Your task to perform on an android device: turn on priority inbox in the gmail app Image 0: 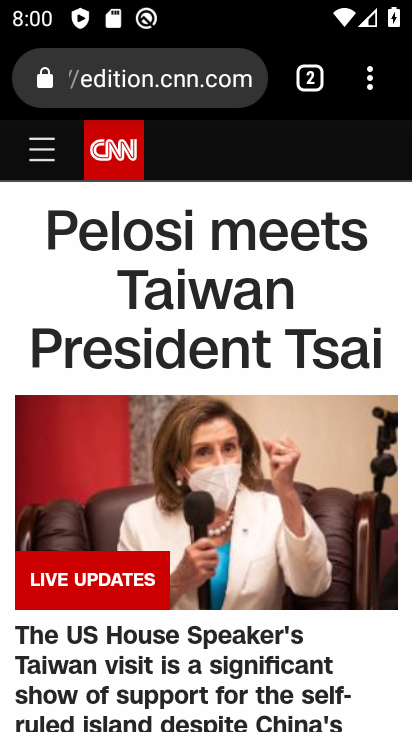
Step 0: press home button
Your task to perform on an android device: turn on priority inbox in the gmail app Image 1: 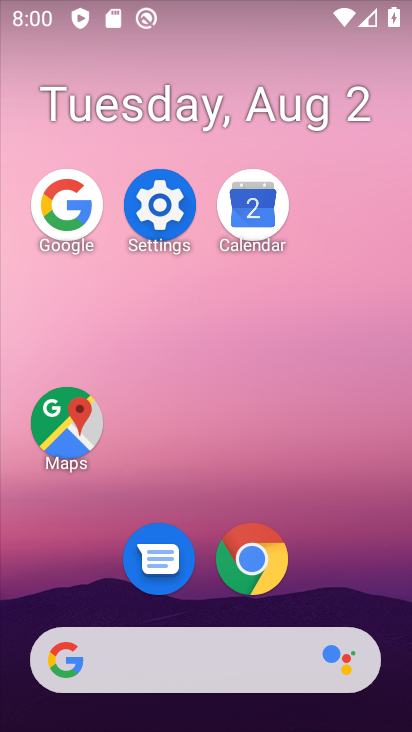
Step 1: drag from (365, 550) to (385, 99)
Your task to perform on an android device: turn on priority inbox in the gmail app Image 2: 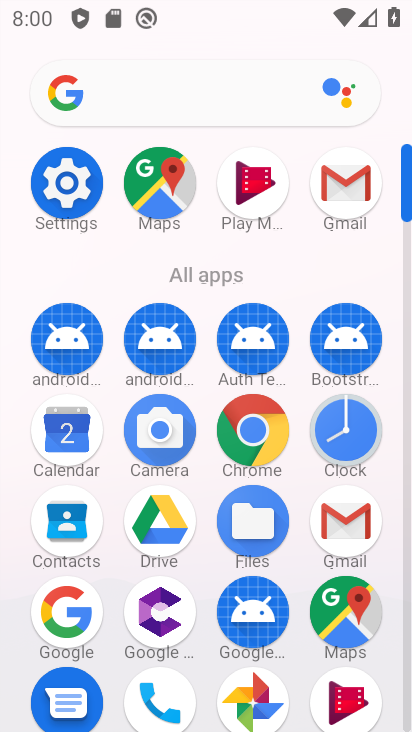
Step 2: drag from (344, 188) to (179, 322)
Your task to perform on an android device: turn on priority inbox in the gmail app Image 3: 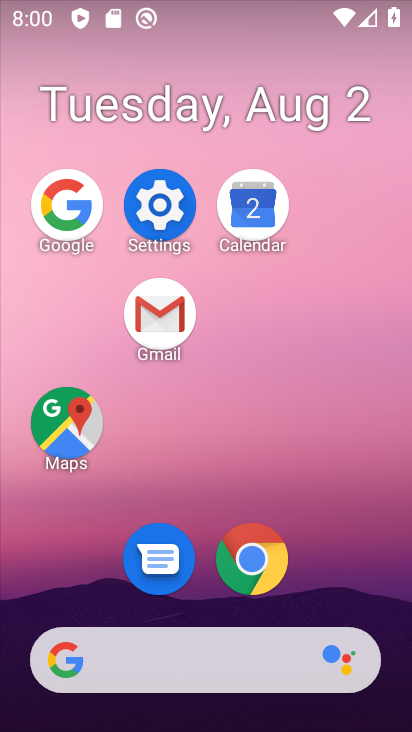
Step 3: click (178, 322)
Your task to perform on an android device: turn on priority inbox in the gmail app Image 4: 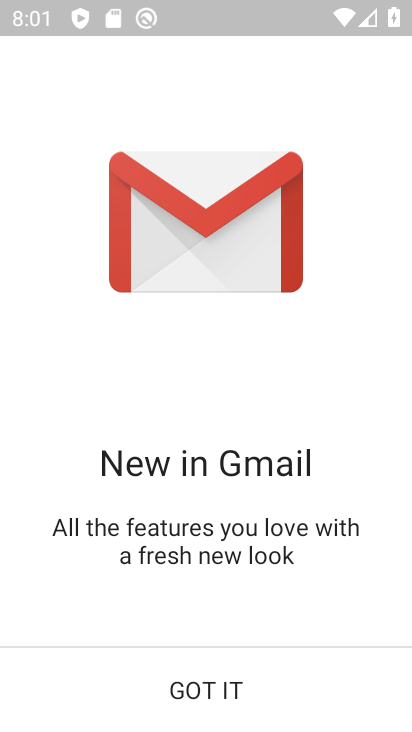
Step 4: click (188, 718)
Your task to perform on an android device: turn on priority inbox in the gmail app Image 5: 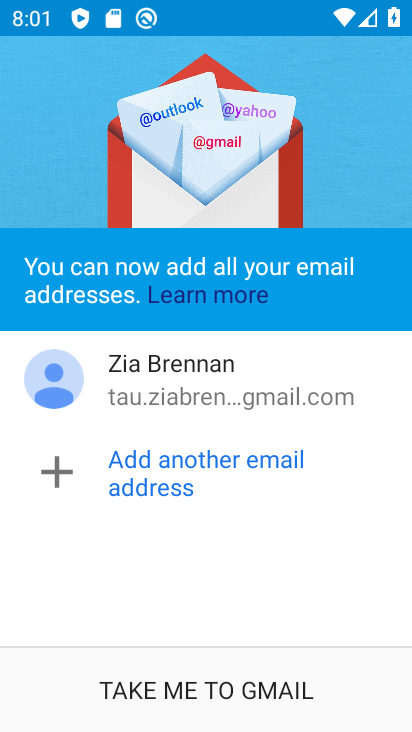
Step 5: click (188, 718)
Your task to perform on an android device: turn on priority inbox in the gmail app Image 6: 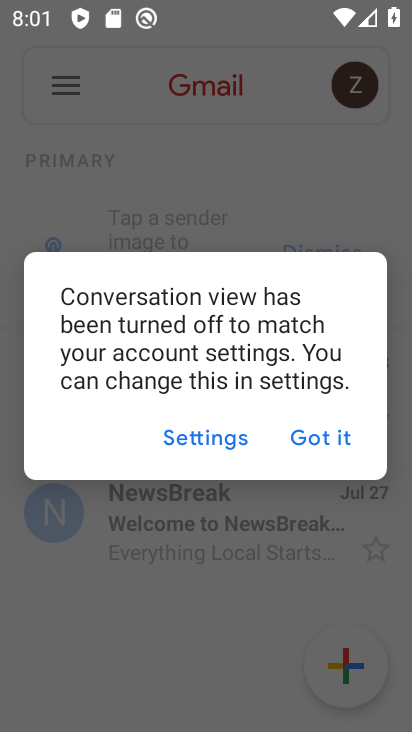
Step 6: click (353, 453)
Your task to perform on an android device: turn on priority inbox in the gmail app Image 7: 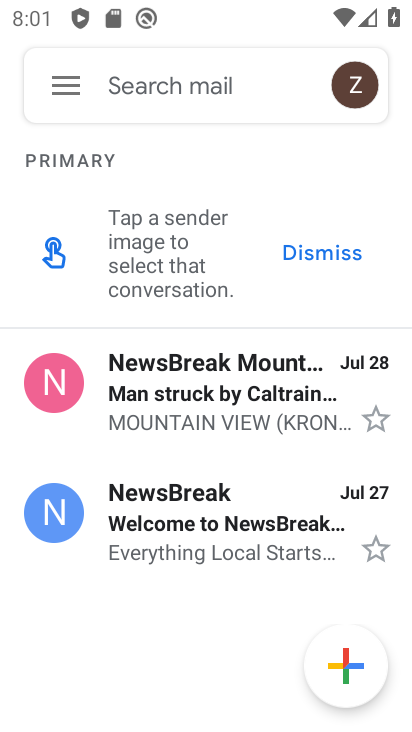
Step 7: click (89, 74)
Your task to perform on an android device: turn on priority inbox in the gmail app Image 8: 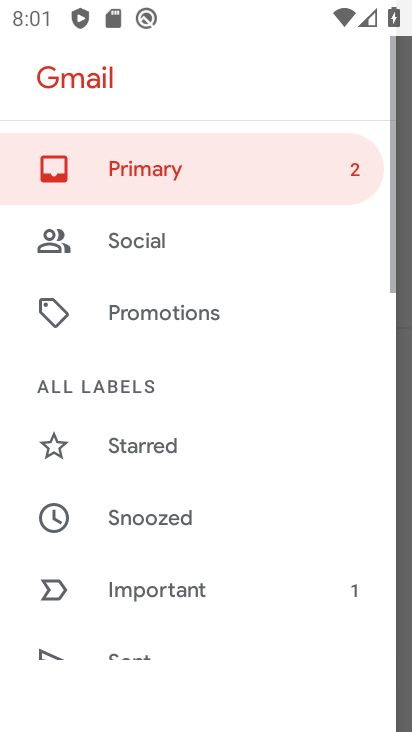
Step 8: drag from (293, 454) to (340, 126)
Your task to perform on an android device: turn on priority inbox in the gmail app Image 9: 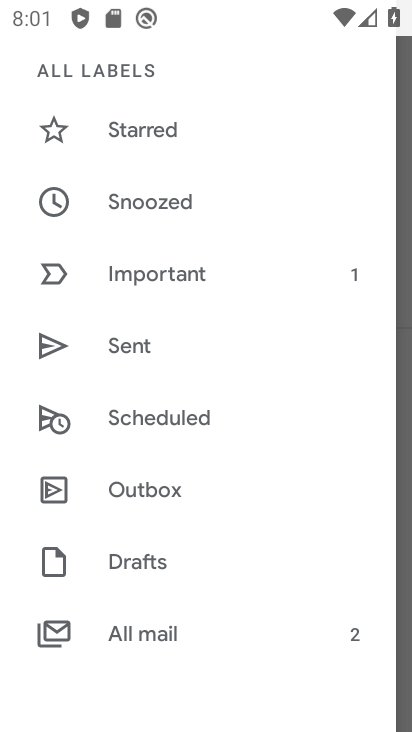
Step 9: drag from (275, 510) to (255, 170)
Your task to perform on an android device: turn on priority inbox in the gmail app Image 10: 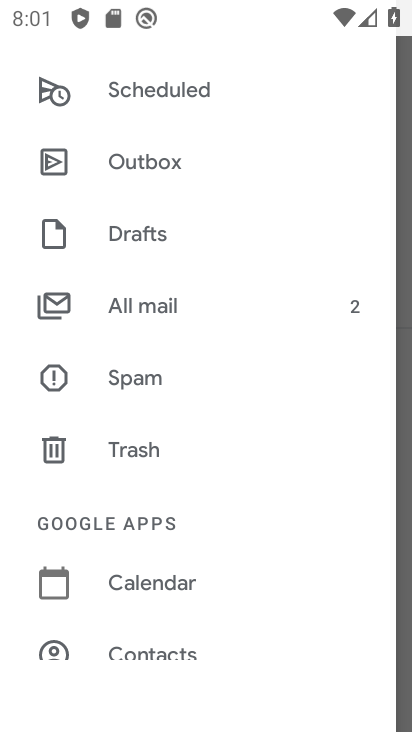
Step 10: drag from (204, 564) to (201, 223)
Your task to perform on an android device: turn on priority inbox in the gmail app Image 11: 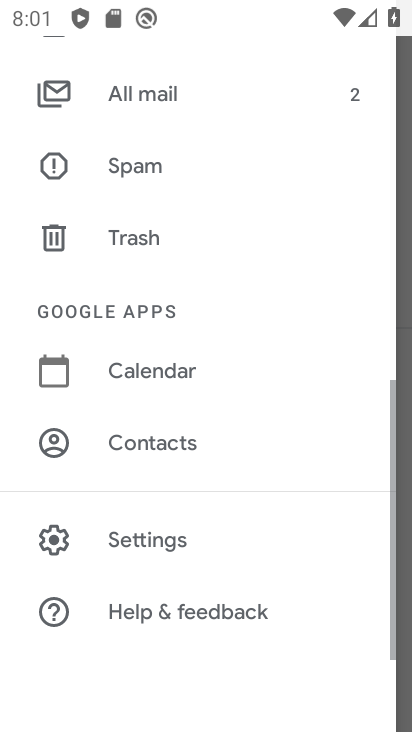
Step 11: click (213, 513)
Your task to perform on an android device: turn on priority inbox in the gmail app Image 12: 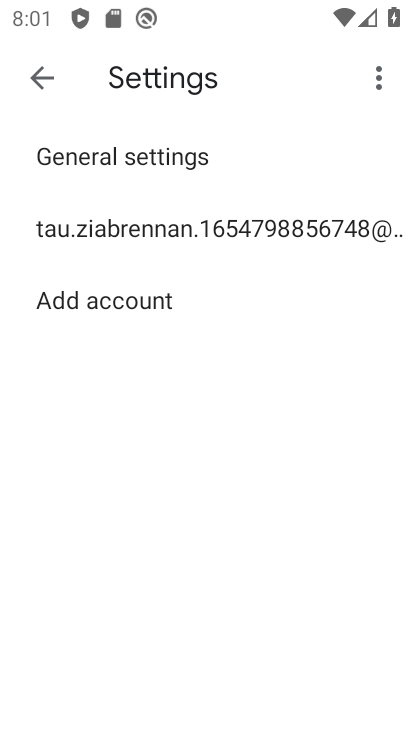
Step 12: click (219, 240)
Your task to perform on an android device: turn on priority inbox in the gmail app Image 13: 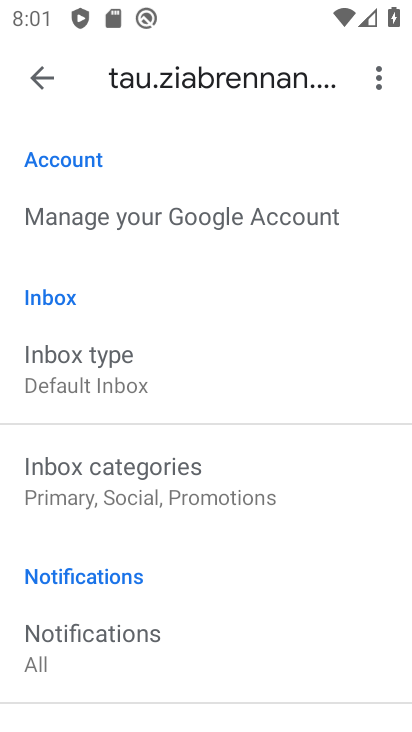
Step 13: click (239, 382)
Your task to perform on an android device: turn on priority inbox in the gmail app Image 14: 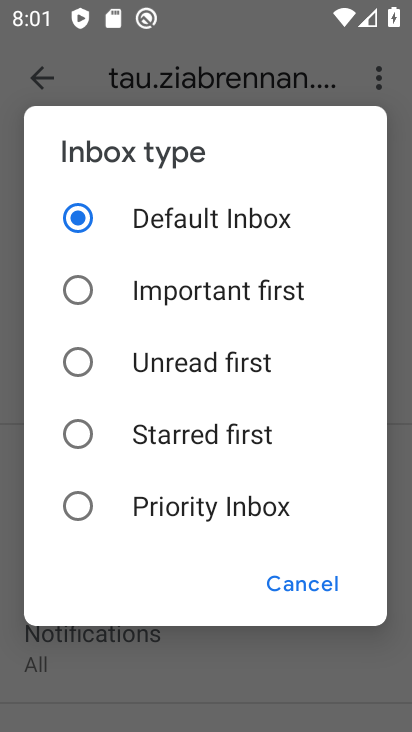
Step 14: click (211, 507)
Your task to perform on an android device: turn on priority inbox in the gmail app Image 15: 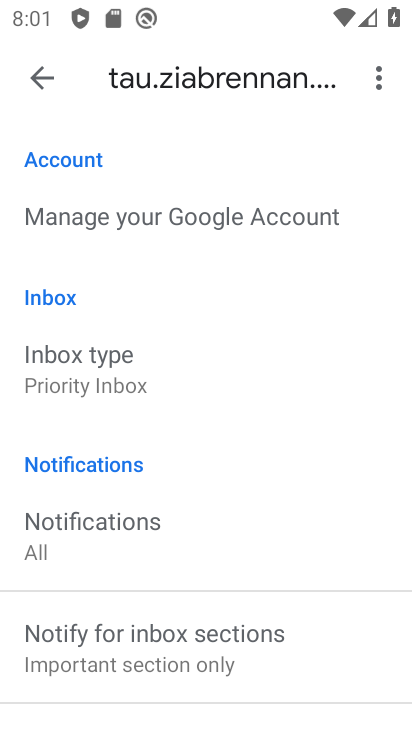
Step 15: task complete